Your task to perform on an android device: turn off notifications in google photos Image 0: 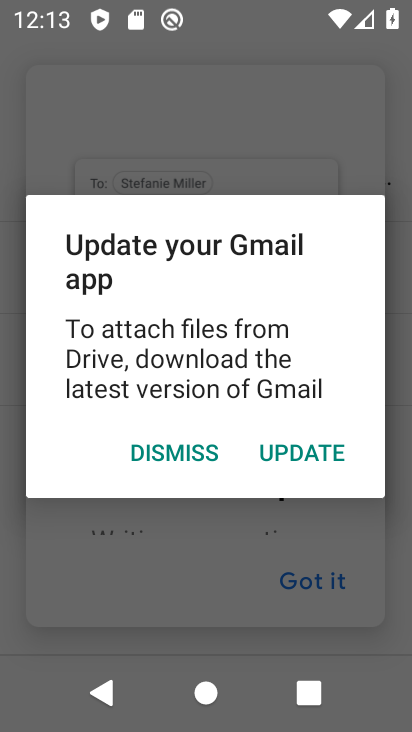
Step 0: press home button
Your task to perform on an android device: turn off notifications in google photos Image 1: 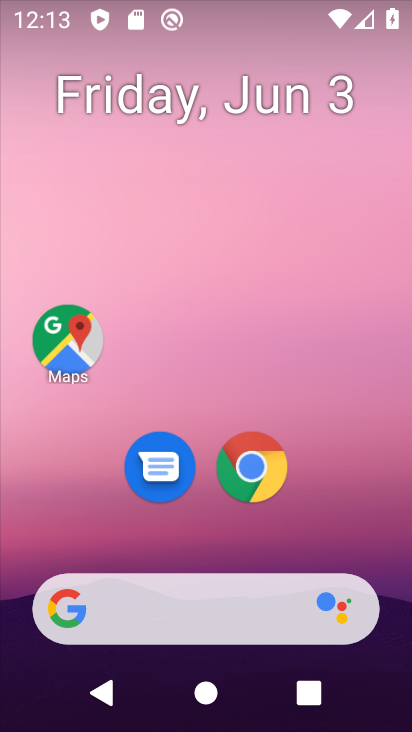
Step 1: drag from (19, 588) to (179, 91)
Your task to perform on an android device: turn off notifications in google photos Image 2: 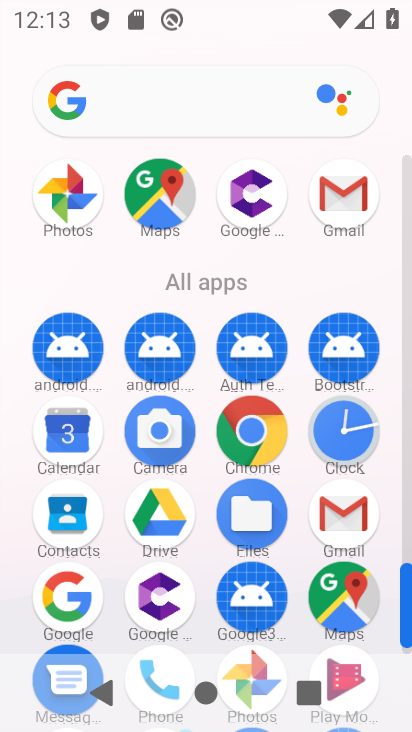
Step 2: drag from (256, 643) to (304, 401)
Your task to perform on an android device: turn off notifications in google photos Image 3: 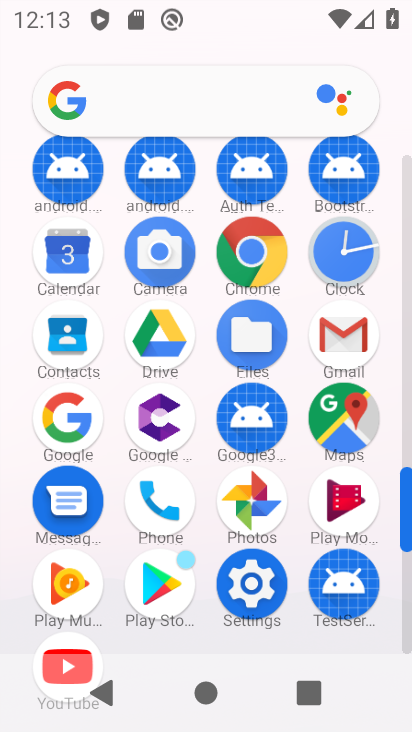
Step 3: click (256, 512)
Your task to perform on an android device: turn off notifications in google photos Image 4: 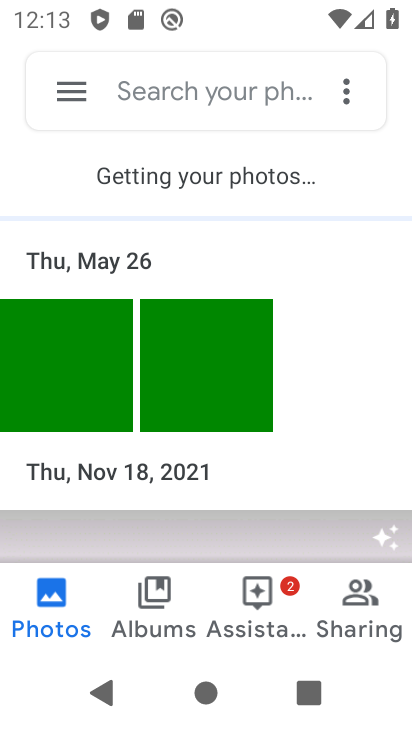
Step 4: click (103, 96)
Your task to perform on an android device: turn off notifications in google photos Image 5: 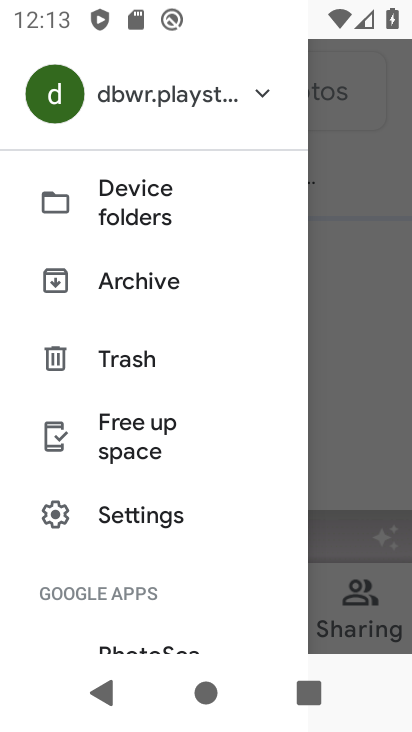
Step 5: drag from (191, 651) to (263, 311)
Your task to perform on an android device: turn off notifications in google photos Image 6: 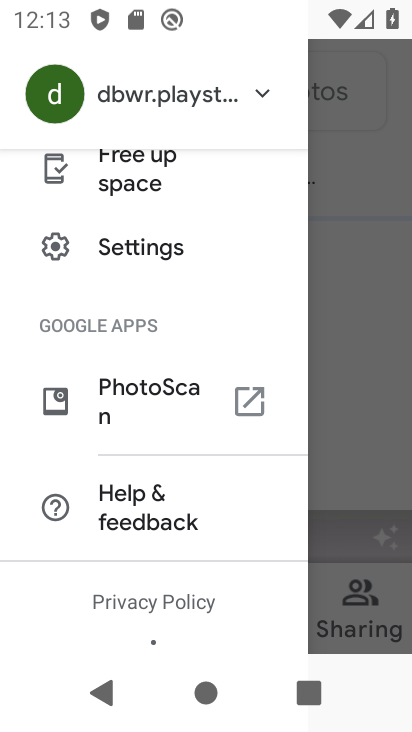
Step 6: click (201, 249)
Your task to perform on an android device: turn off notifications in google photos Image 7: 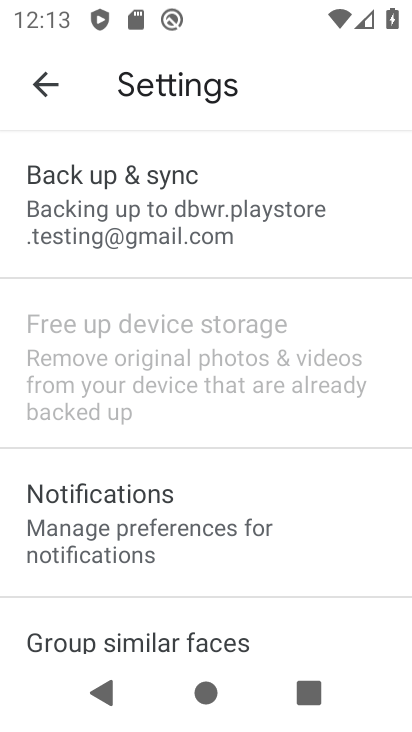
Step 7: click (230, 220)
Your task to perform on an android device: turn off notifications in google photos Image 8: 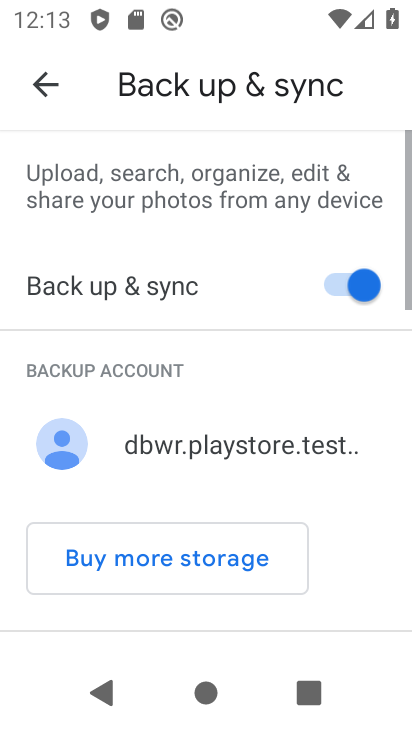
Step 8: drag from (171, 570) to (352, 152)
Your task to perform on an android device: turn off notifications in google photos Image 9: 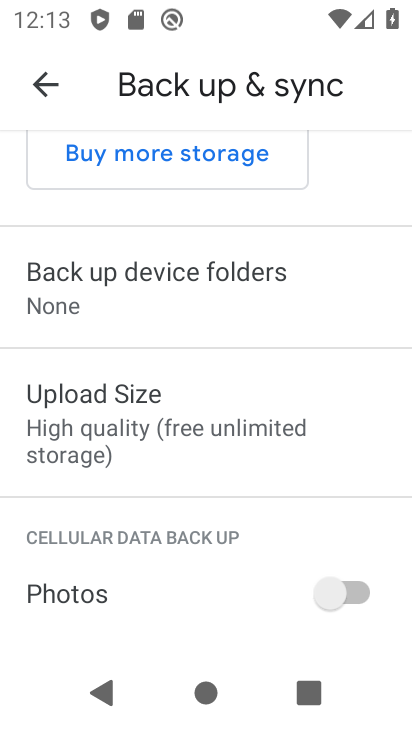
Step 9: drag from (202, 502) to (300, 258)
Your task to perform on an android device: turn off notifications in google photos Image 10: 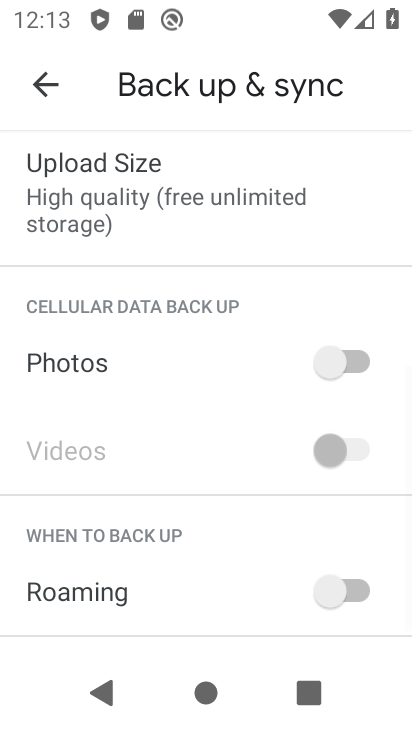
Step 10: press back button
Your task to perform on an android device: turn off notifications in google photos Image 11: 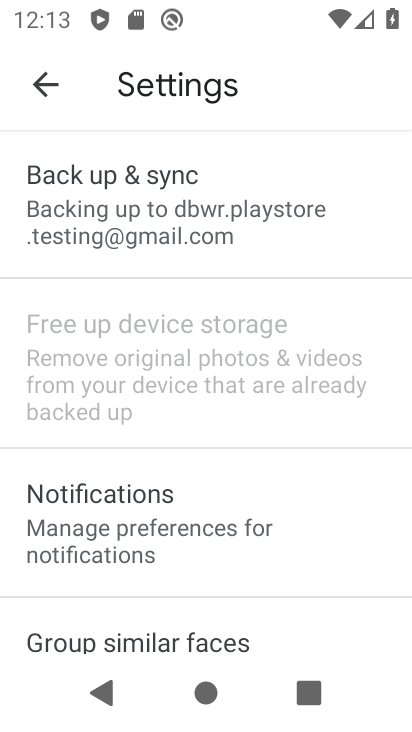
Step 11: drag from (176, 618) to (212, 451)
Your task to perform on an android device: turn off notifications in google photos Image 12: 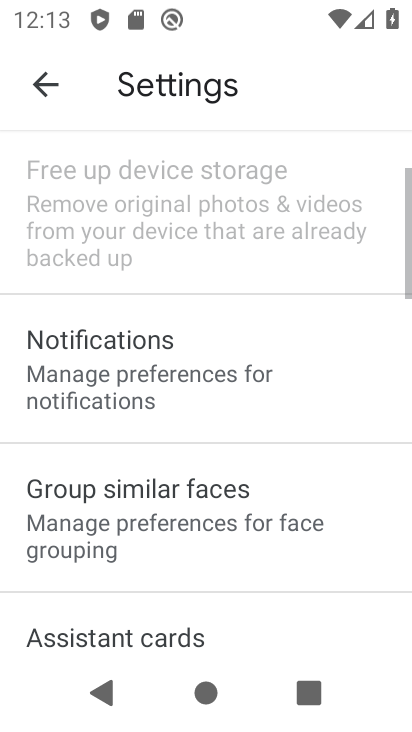
Step 12: click (179, 375)
Your task to perform on an android device: turn off notifications in google photos Image 13: 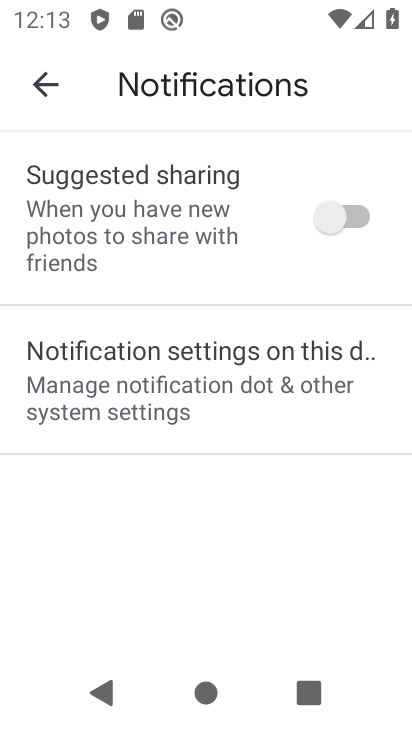
Step 13: click (357, 383)
Your task to perform on an android device: turn off notifications in google photos Image 14: 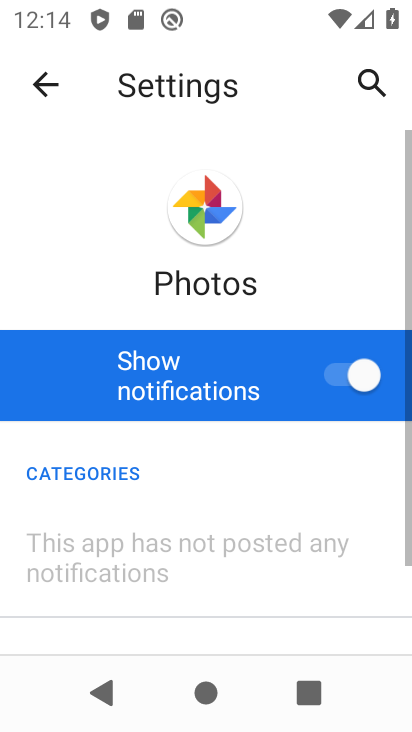
Step 14: click (358, 370)
Your task to perform on an android device: turn off notifications in google photos Image 15: 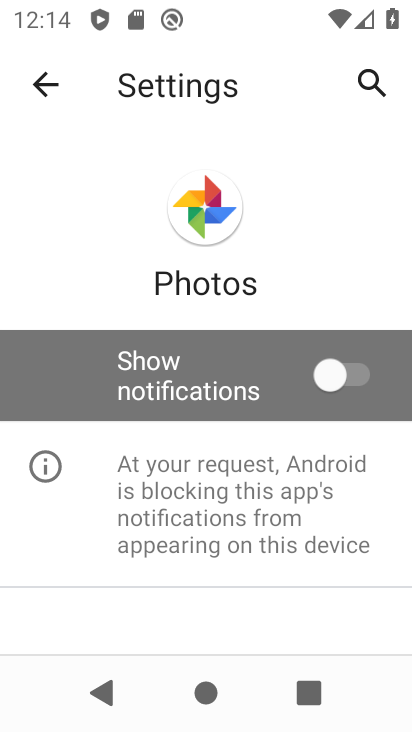
Step 15: task complete